Your task to perform on an android device: Go to display settings Image 0: 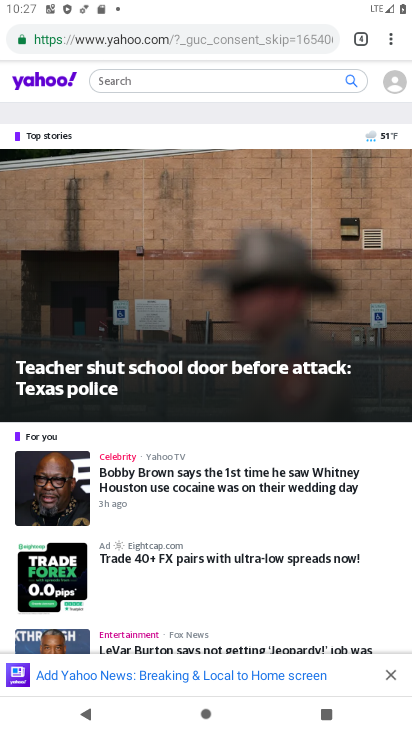
Step 0: press home button
Your task to perform on an android device: Go to display settings Image 1: 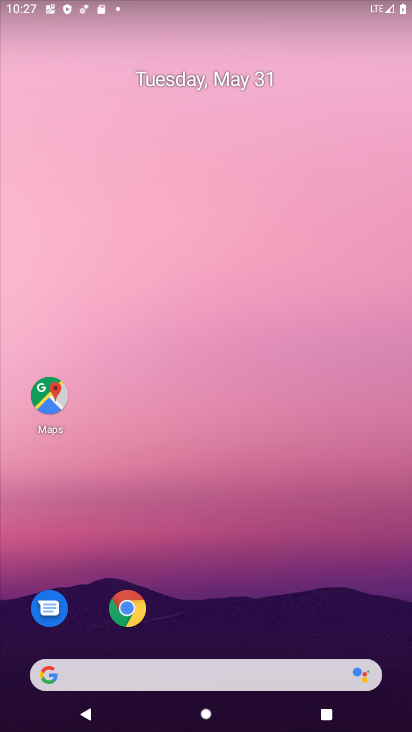
Step 1: drag from (224, 635) to (288, 2)
Your task to perform on an android device: Go to display settings Image 2: 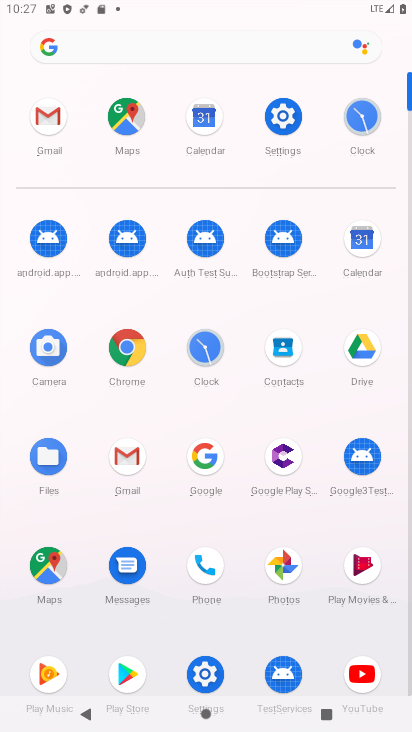
Step 2: click (282, 133)
Your task to perform on an android device: Go to display settings Image 3: 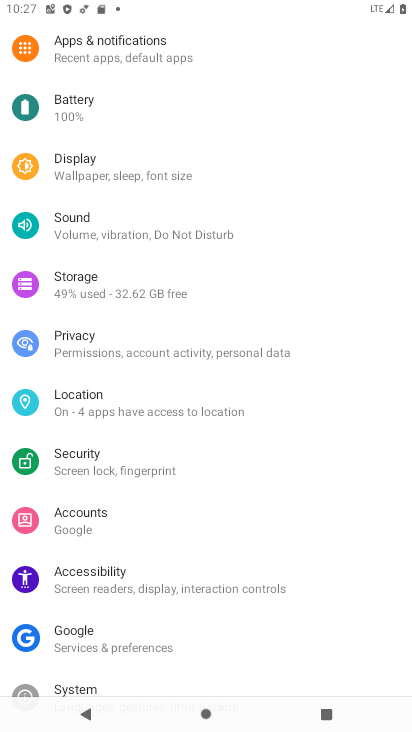
Step 3: click (69, 153)
Your task to perform on an android device: Go to display settings Image 4: 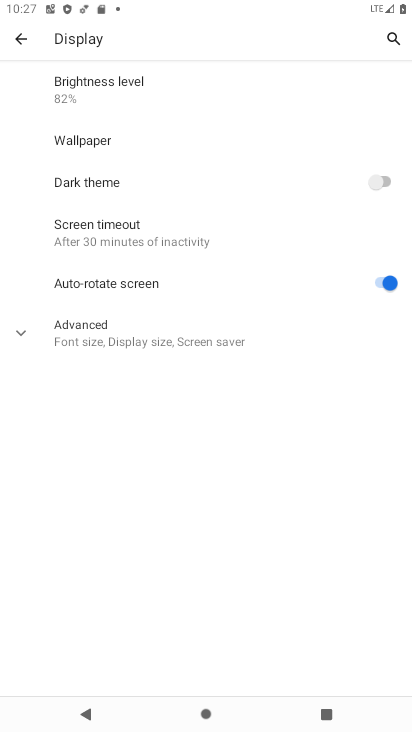
Step 4: task complete